Your task to perform on an android device: check battery use Image 0: 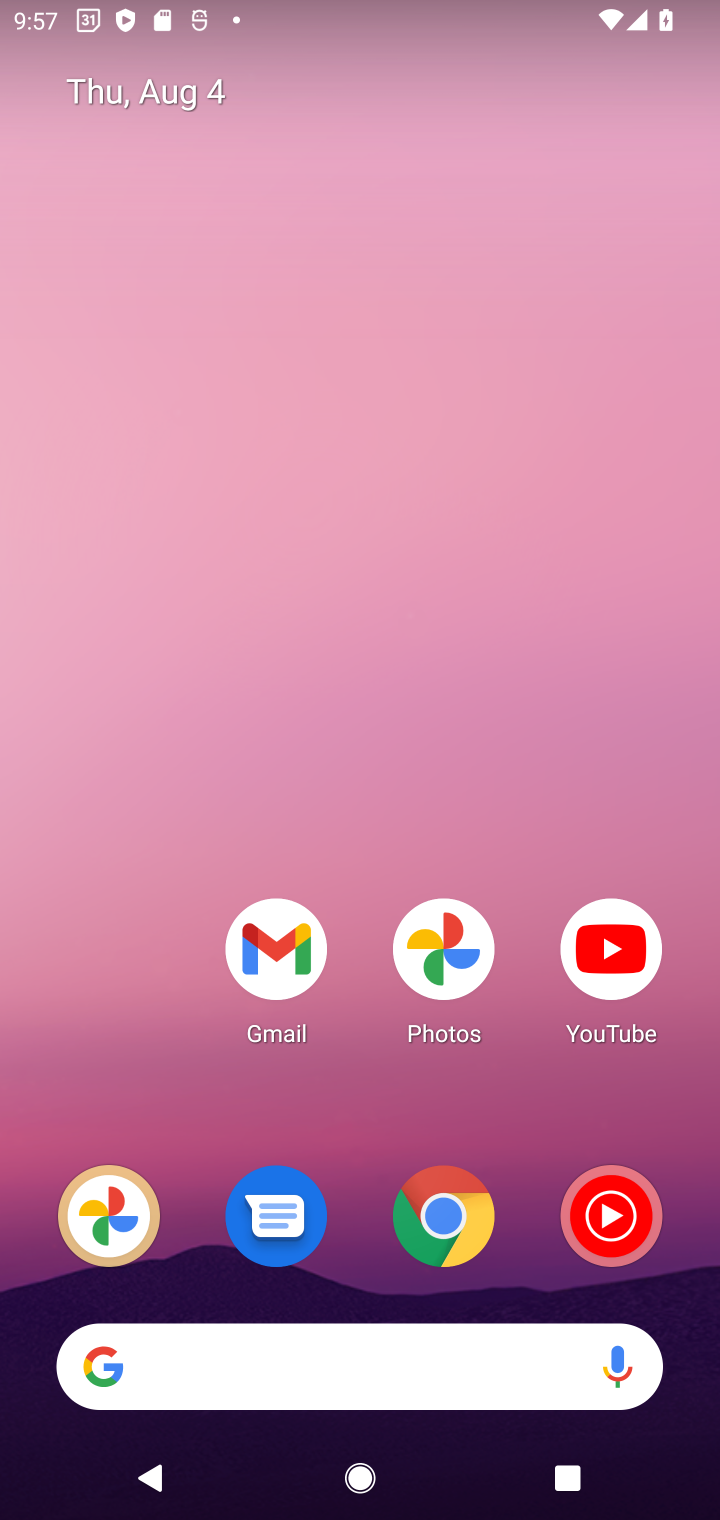
Step 0: drag from (246, 1368) to (267, 377)
Your task to perform on an android device: check battery use Image 1: 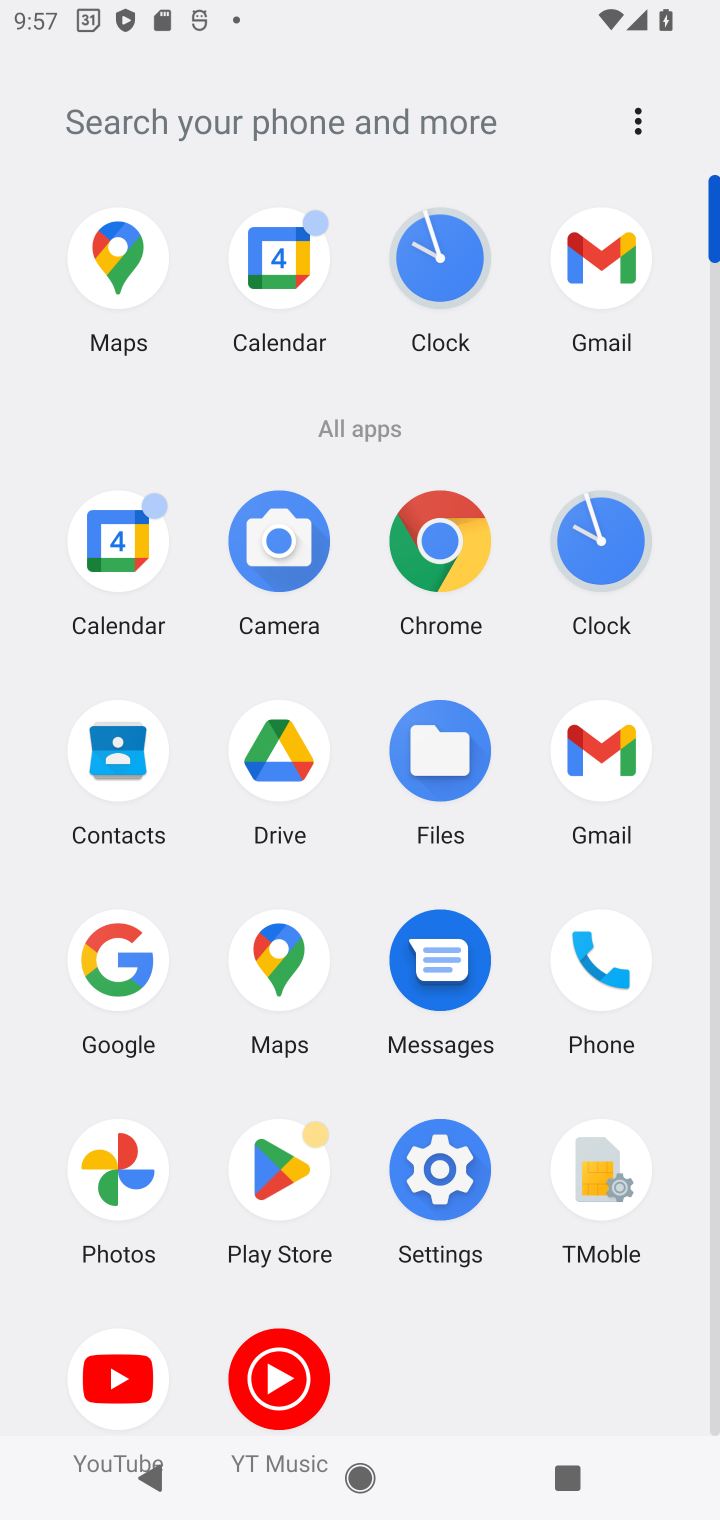
Step 1: click (436, 1173)
Your task to perform on an android device: check battery use Image 2: 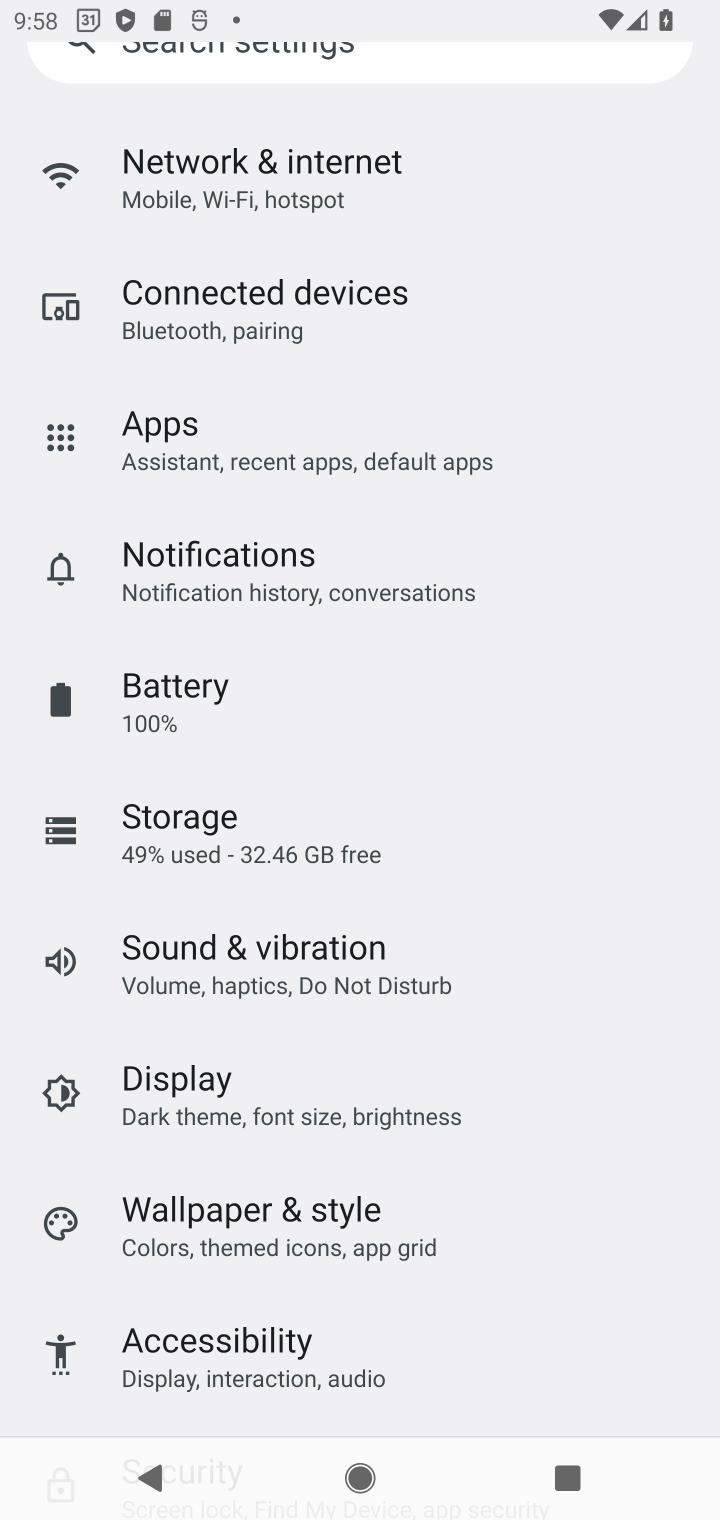
Step 2: click (183, 703)
Your task to perform on an android device: check battery use Image 3: 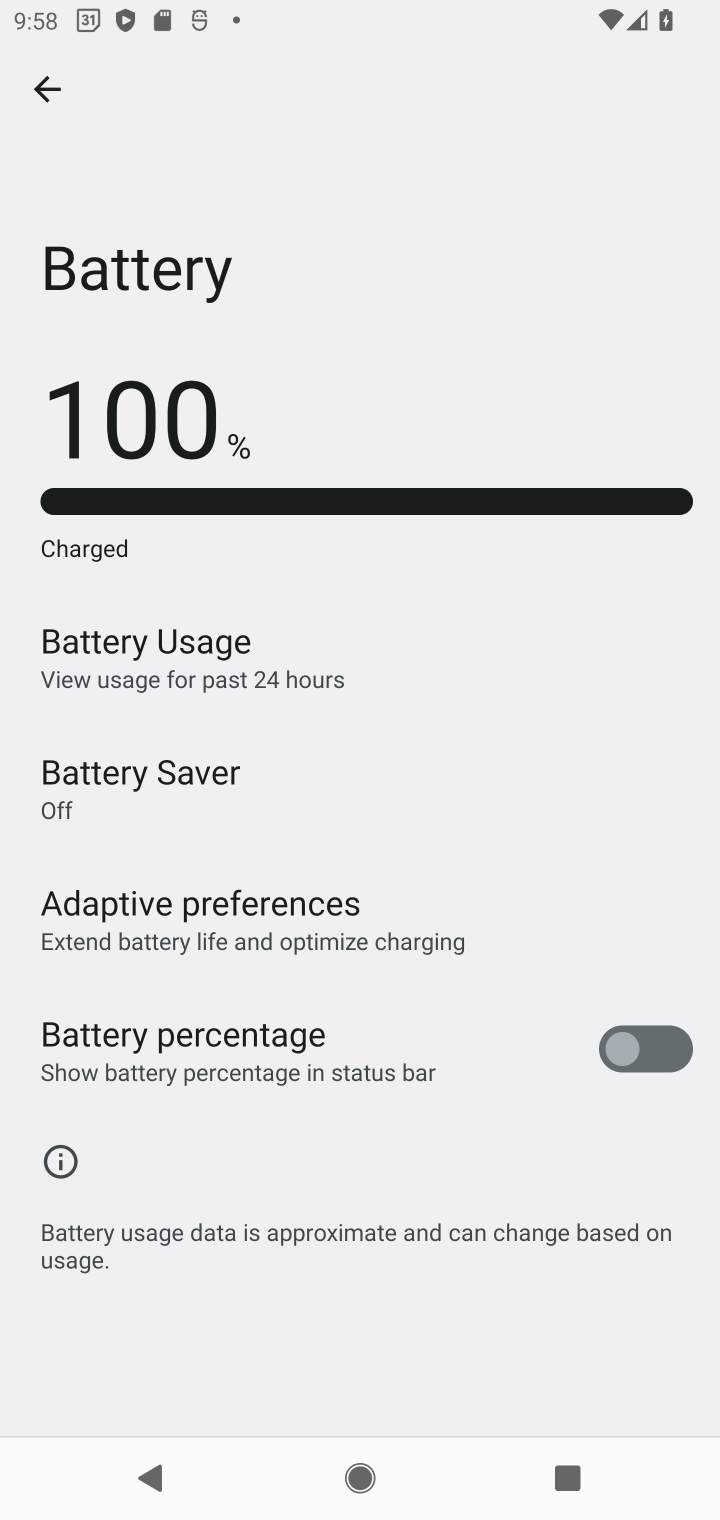
Step 3: click (142, 682)
Your task to perform on an android device: check battery use Image 4: 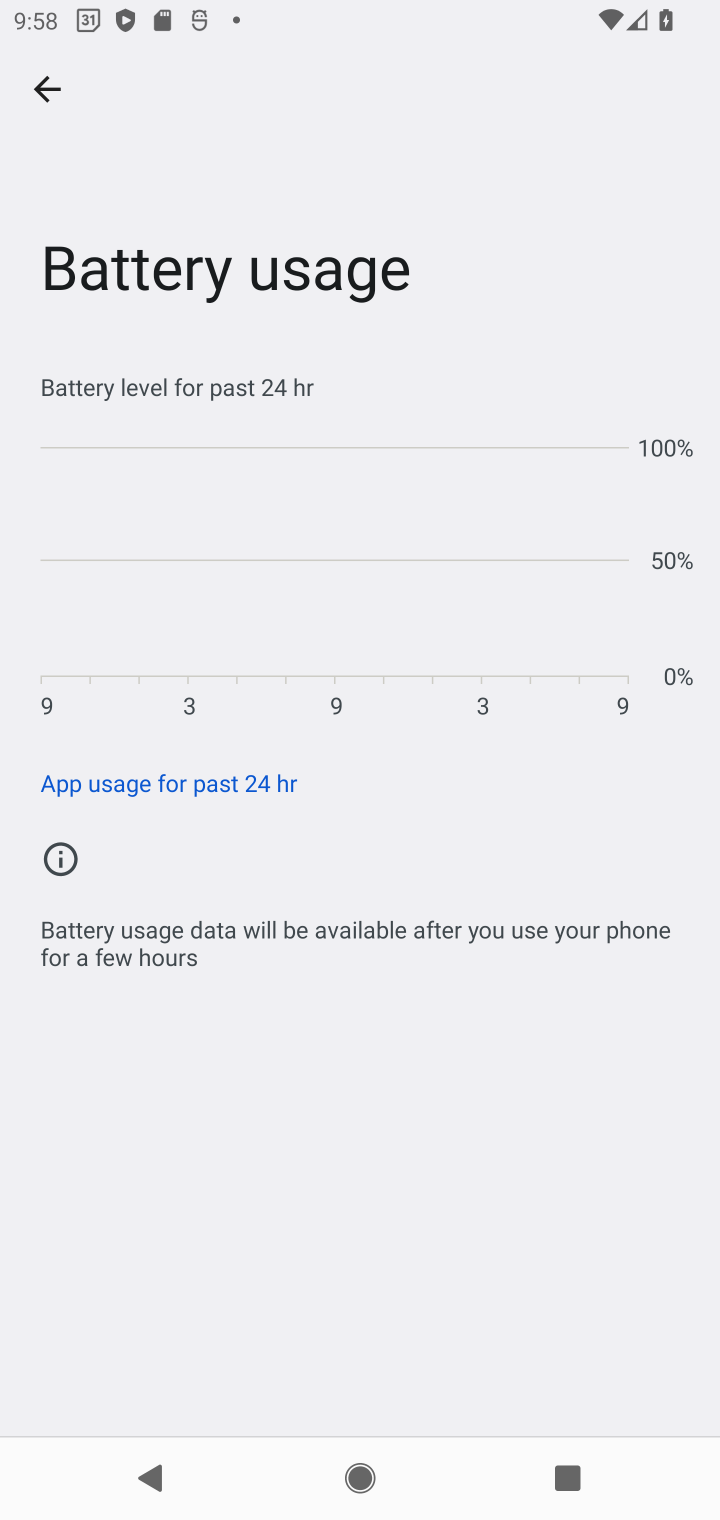
Step 4: task complete